Your task to perform on an android device: create a new album in the google photos Image 0: 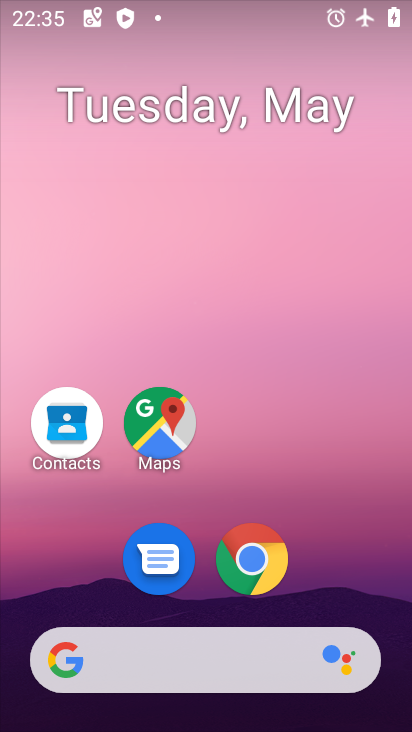
Step 0: drag from (369, 575) to (324, 113)
Your task to perform on an android device: create a new album in the google photos Image 1: 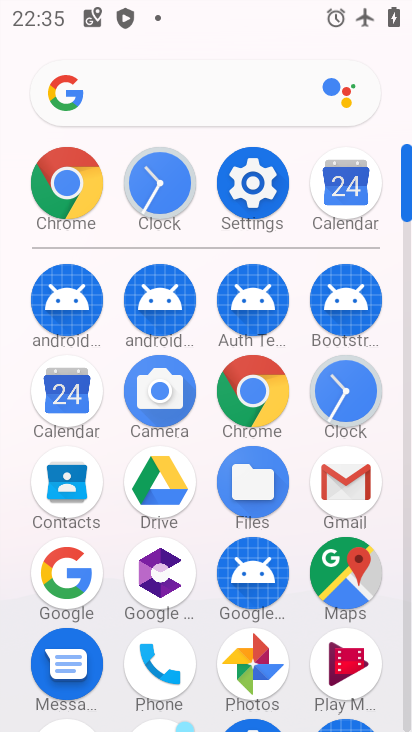
Step 1: click (263, 652)
Your task to perform on an android device: create a new album in the google photos Image 2: 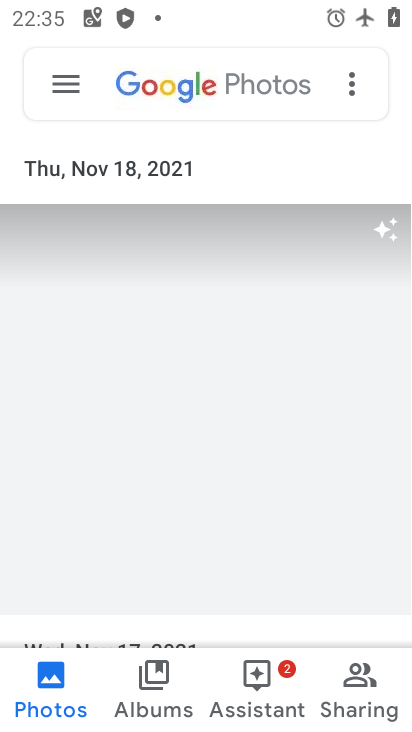
Step 2: task complete